Your task to perform on an android device: turn on bluetooth scan Image 0: 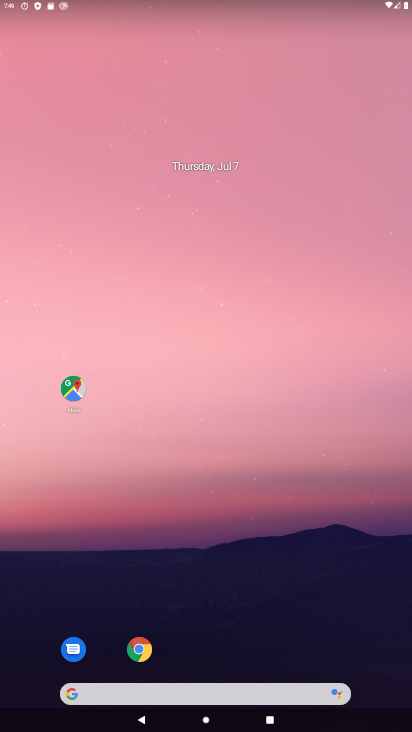
Step 0: drag from (217, 646) to (233, 235)
Your task to perform on an android device: turn on bluetooth scan Image 1: 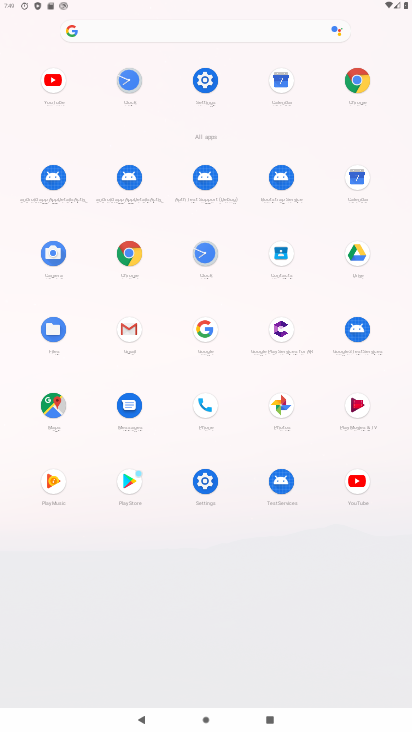
Step 1: click (214, 74)
Your task to perform on an android device: turn on bluetooth scan Image 2: 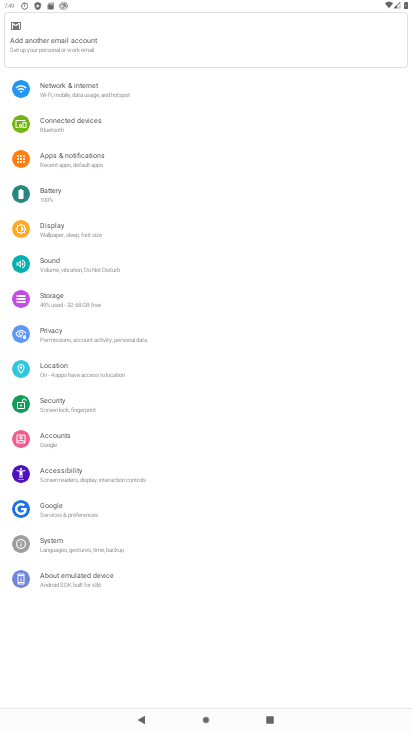
Step 2: click (74, 369)
Your task to perform on an android device: turn on bluetooth scan Image 3: 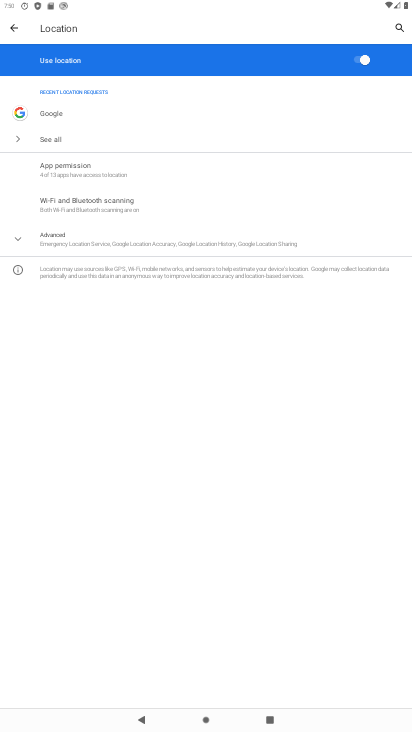
Step 3: click (67, 242)
Your task to perform on an android device: turn on bluetooth scan Image 4: 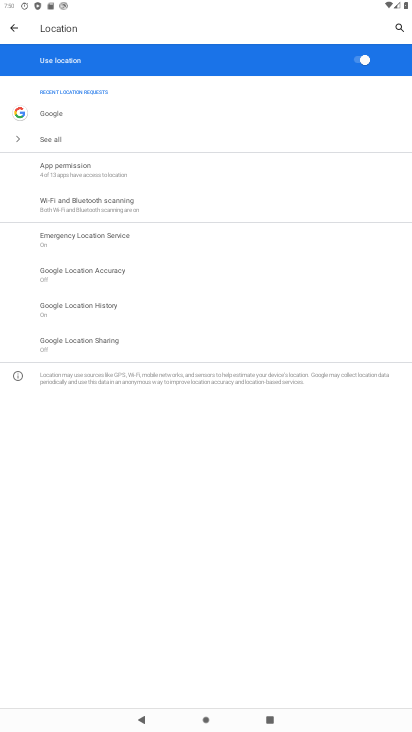
Step 4: click (127, 211)
Your task to perform on an android device: turn on bluetooth scan Image 5: 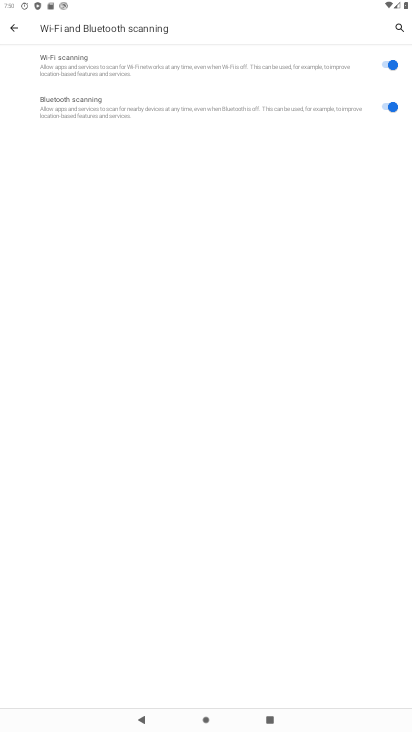
Step 5: task complete